Your task to perform on an android device: add a label to a message in the gmail app Image 0: 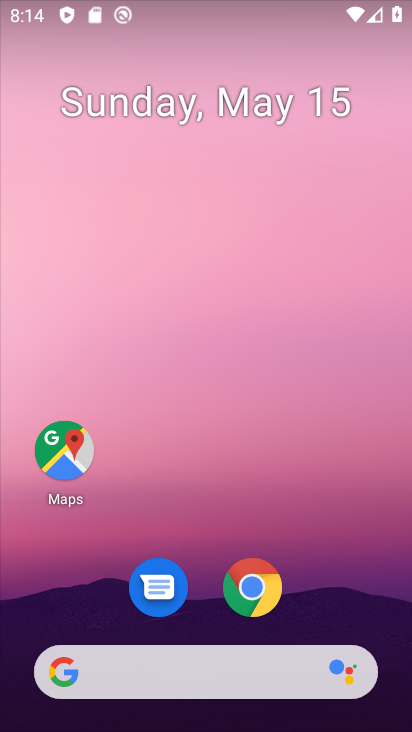
Step 0: drag from (378, 605) to (246, 26)
Your task to perform on an android device: add a label to a message in the gmail app Image 1: 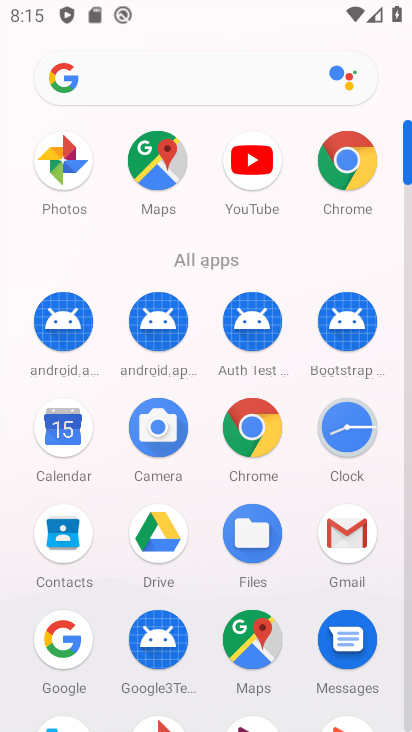
Step 1: click (363, 535)
Your task to perform on an android device: add a label to a message in the gmail app Image 2: 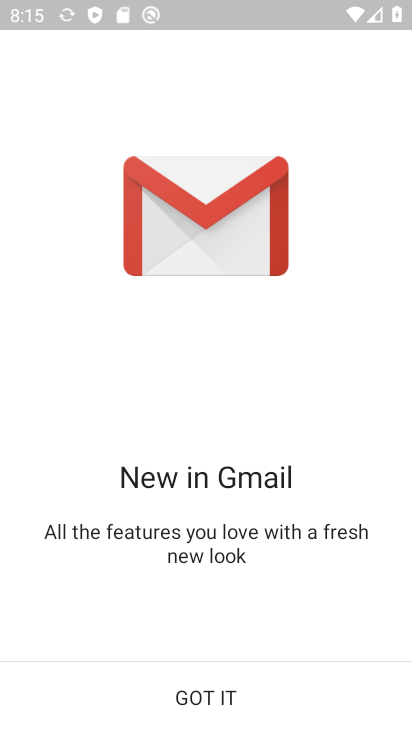
Step 2: click (187, 675)
Your task to perform on an android device: add a label to a message in the gmail app Image 3: 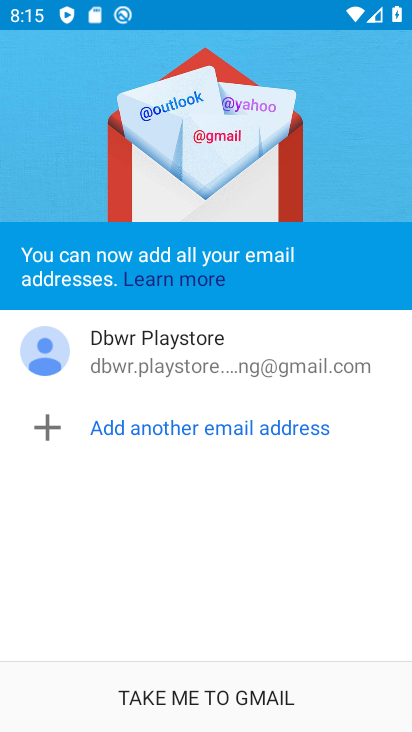
Step 3: click (187, 675)
Your task to perform on an android device: add a label to a message in the gmail app Image 4: 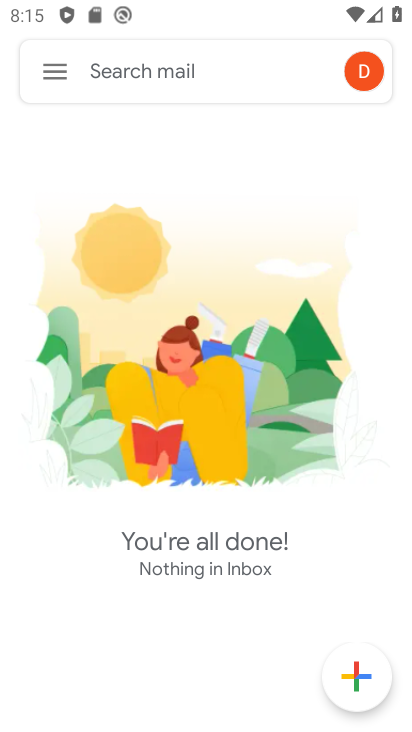
Step 4: task complete